Your task to perform on an android device: turn on location history Image 0: 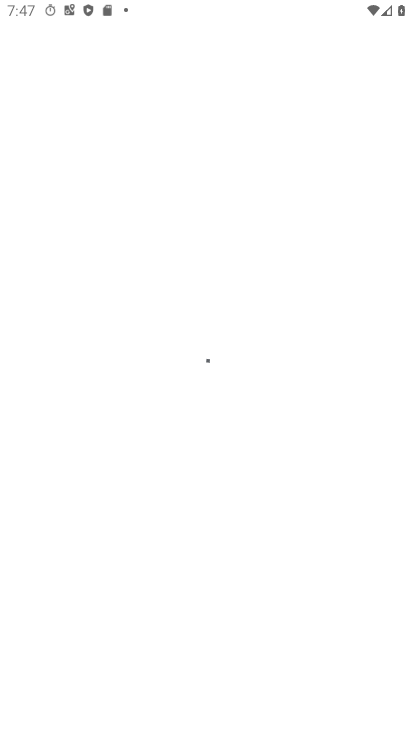
Step 0: press home button
Your task to perform on an android device: turn on location history Image 1: 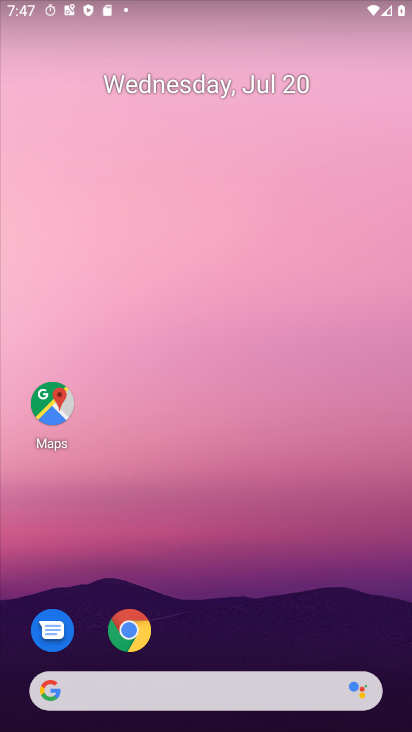
Step 1: drag from (191, 694) to (204, 142)
Your task to perform on an android device: turn on location history Image 2: 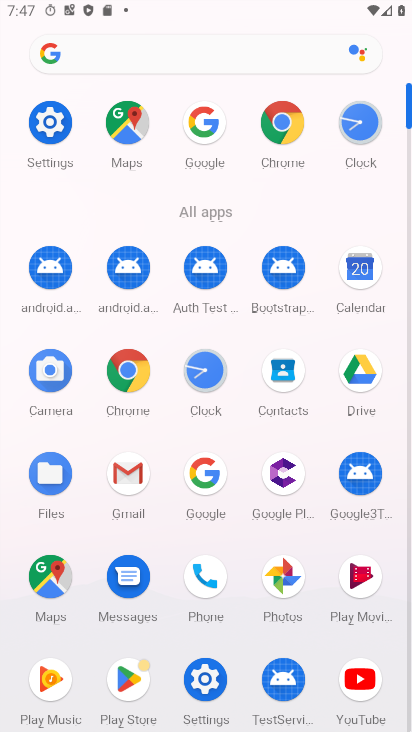
Step 2: click (46, 131)
Your task to perform on an android device: turn on location history Image 3: 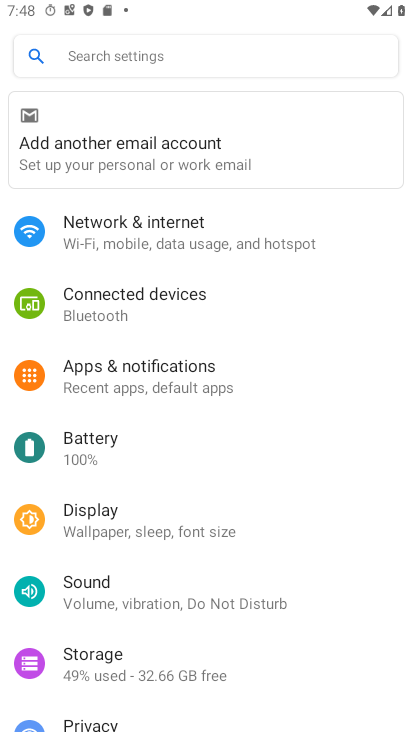
Step 3: drag from (151, 618) to (151, 337)
Your task to perform on an android device: turn on location history Image 4: 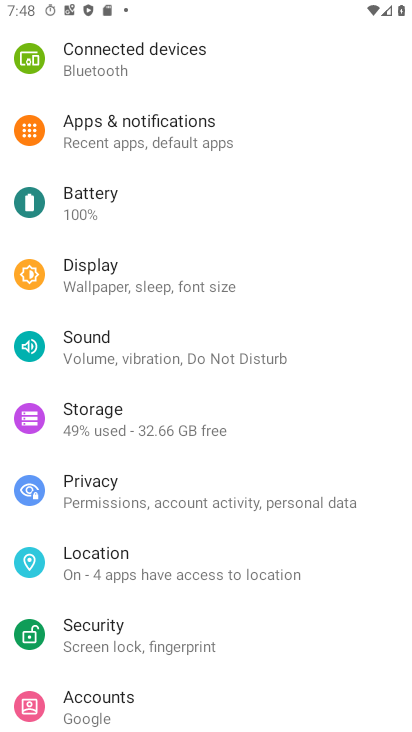
Step 4: click (155, 575)
Your task to perform on an android device: turn on location history Image 5: 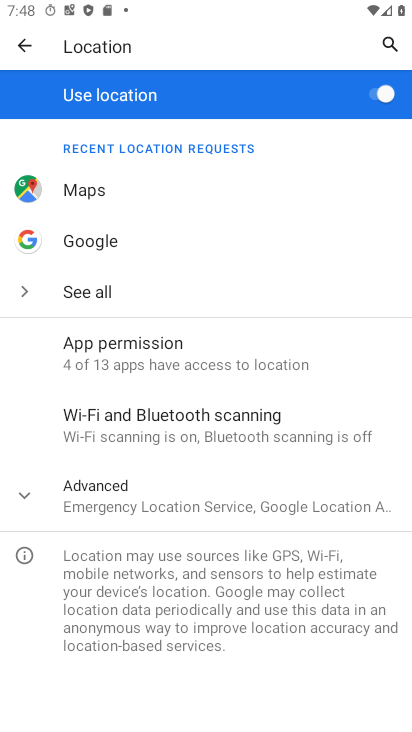
Step 5: click (159, 496)
Your task to perform on an android device: turn on location history Image 6: 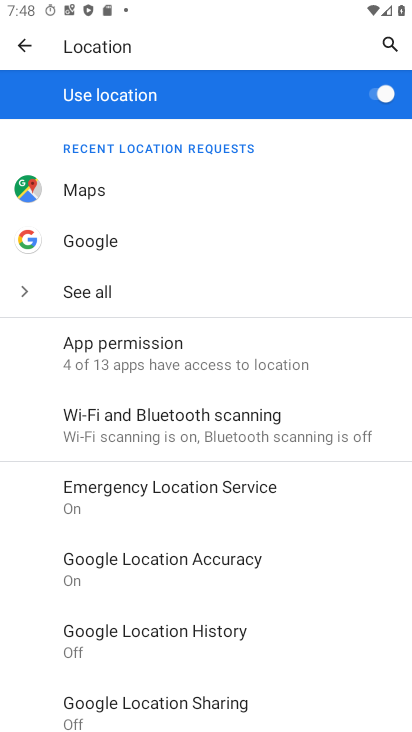
Step 6: click (174, 634)
Your task to perform on an android device: turn on location history Image 7: 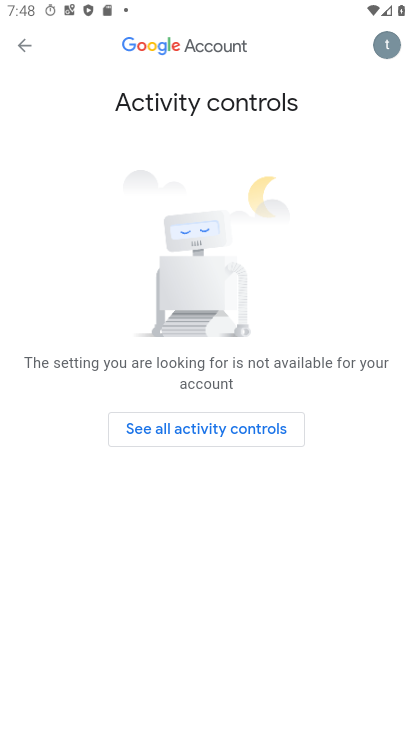
Step 7: task complete